Your task to perform on an android device: What's the news? Image 0: 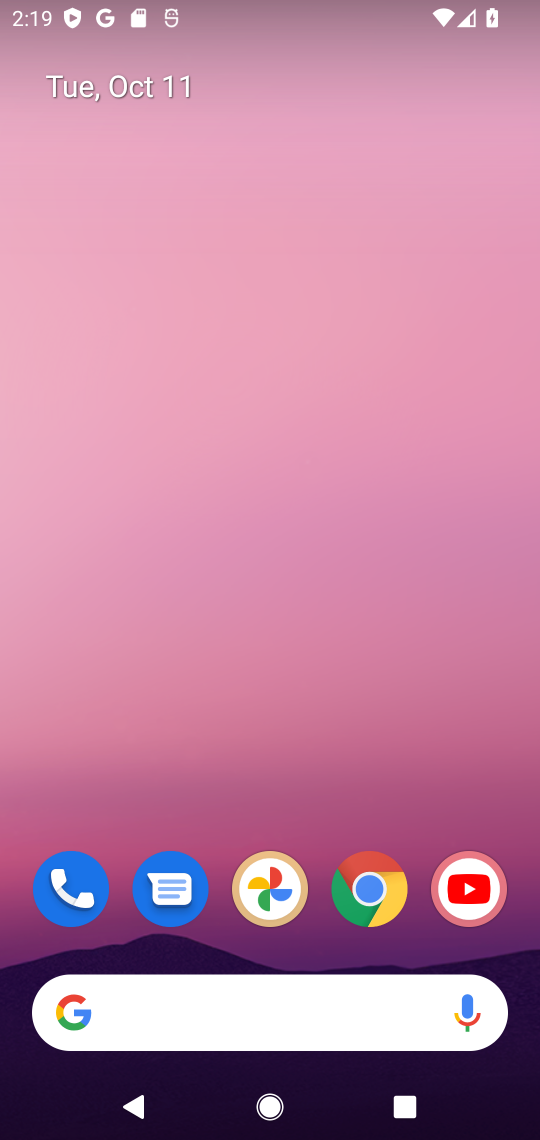
Step 0: drag from (230, 933) to (164, 298)
Your task to perform on an android device: What's the news? Image 1: 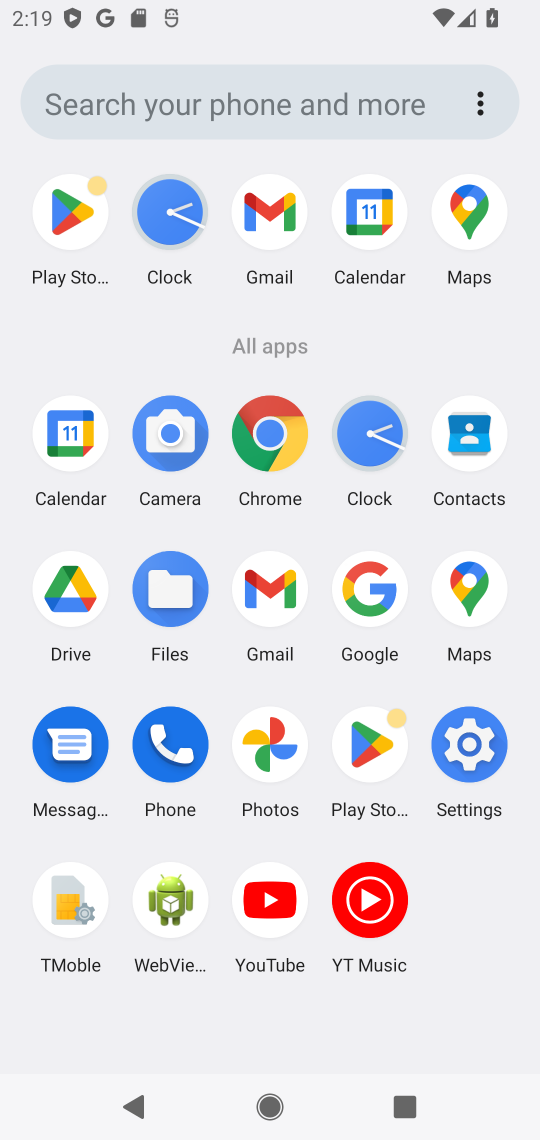
Step 1: click (362, 583)
Your task to perform on an android device: What's the news? Image 2: 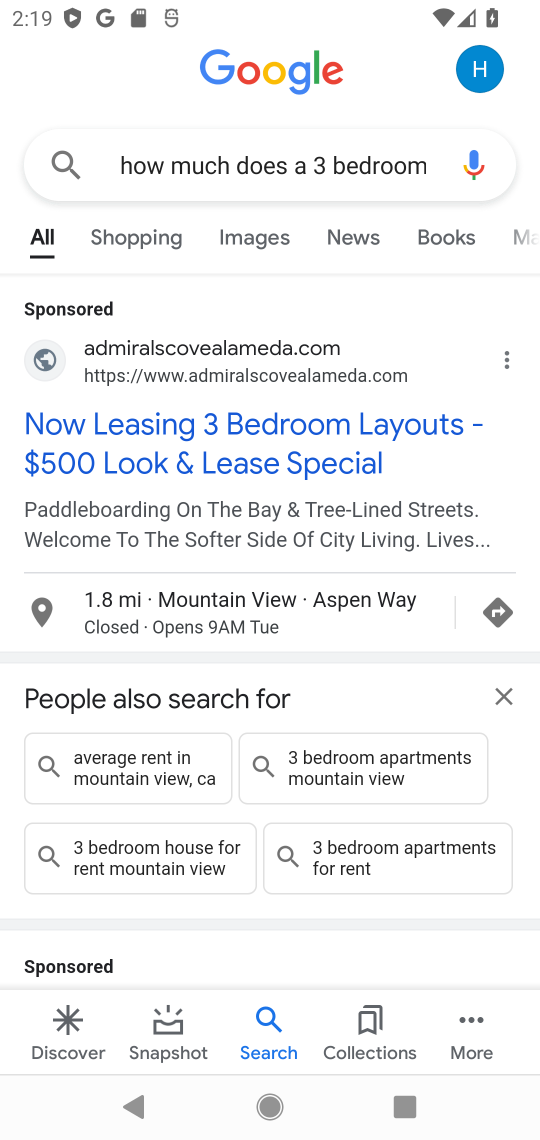
Step 2: click (310, 163)
Your task to perform on an android device: What's the news? Image 3: 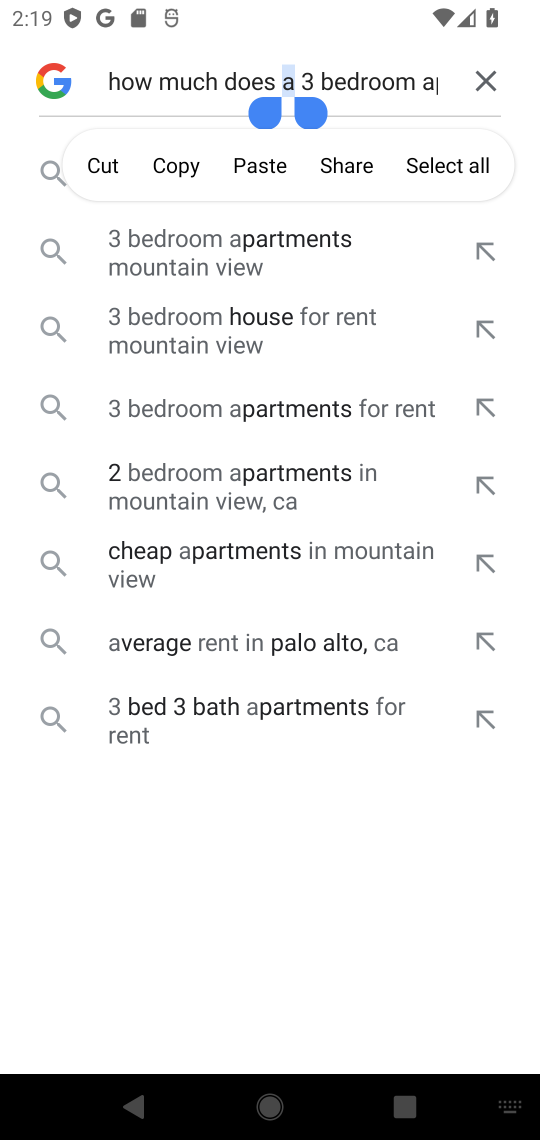
Step 3: click (490, 83)
Your task to perform on an android device: What's the news? Image 4: 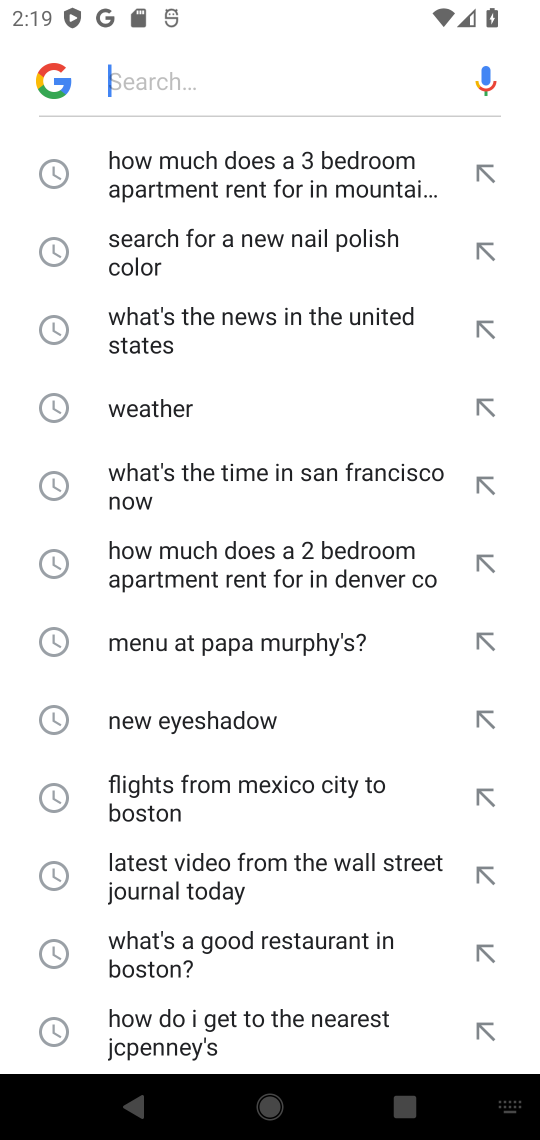
Step 4: click (195, 72)
Your task to perform on an android device: What's the news? Image 5: 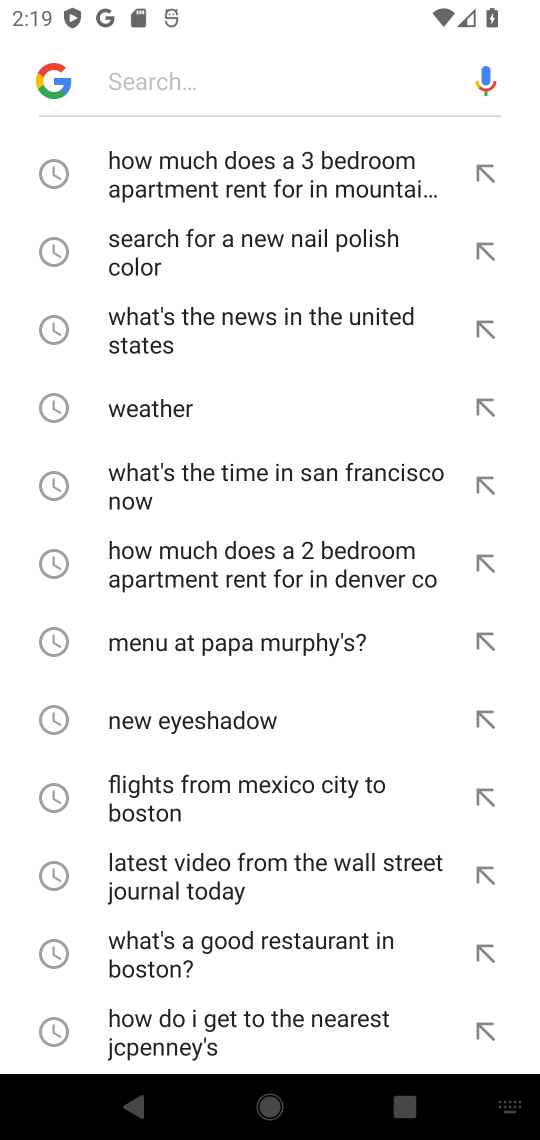
Step 5: type "What's the news? "
Your task to perform on an android device: What's the news? Image 6: 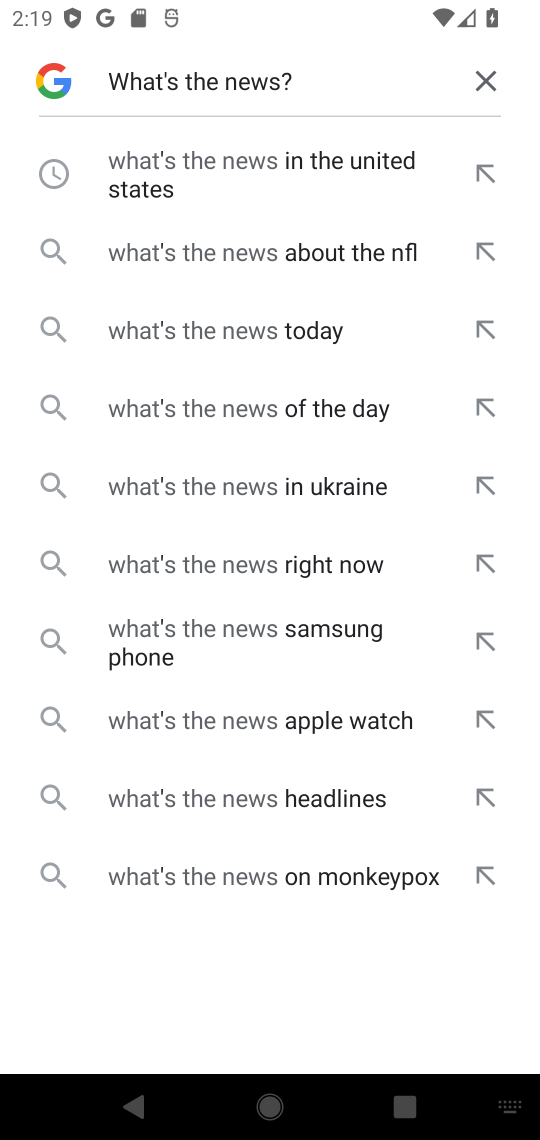
Step 6: click (263, 341)
Your task to perform on an android device: What's the news? Image 7: 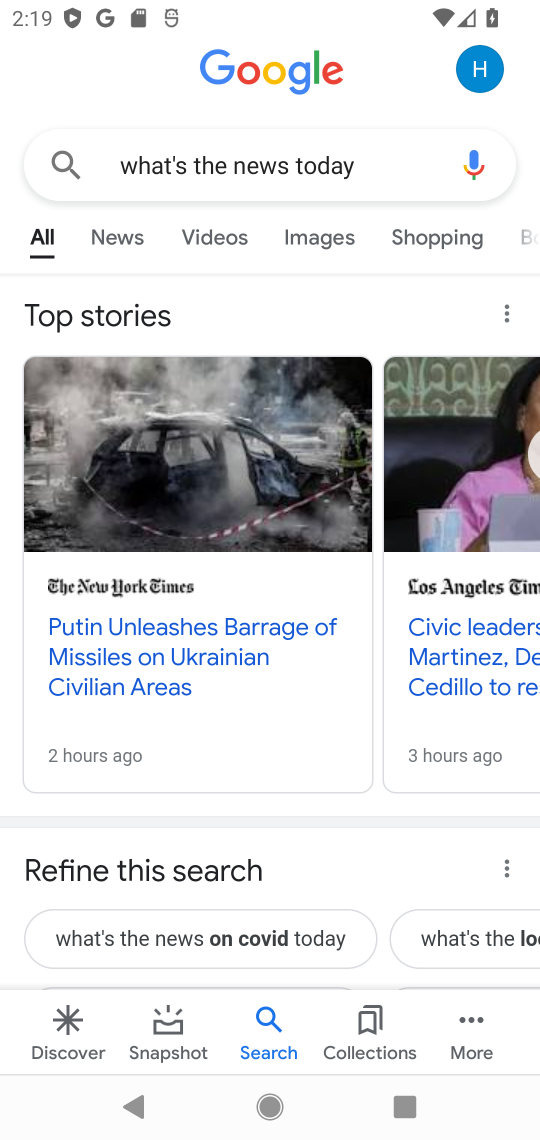
Step 7: drag from (310, 852) to (287, 211)
Your task to perform on an android device: What's the news? Image 8: 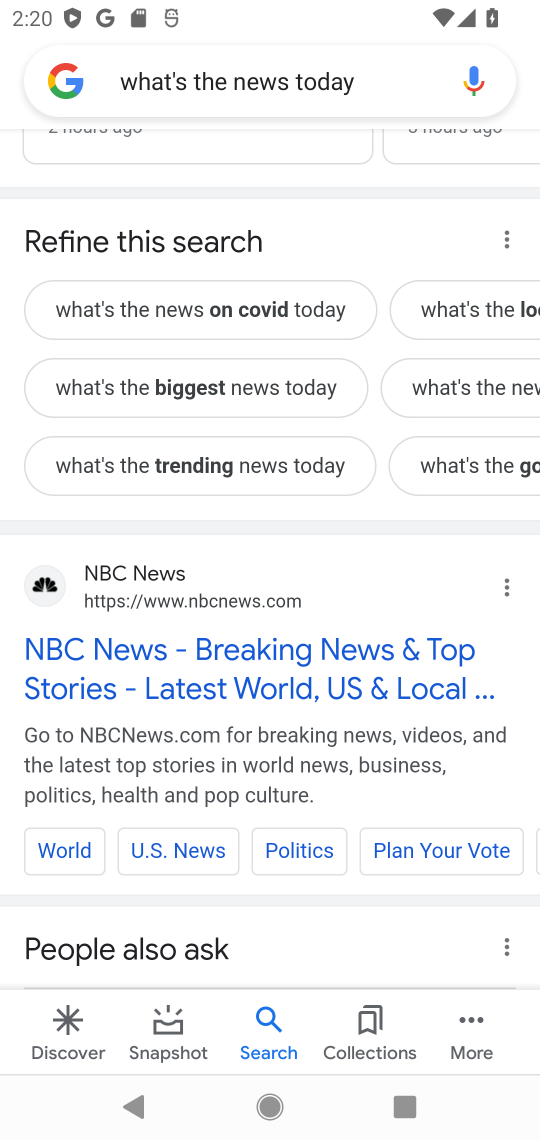
Step 8: click (208, 651)
Your task to perform on an android device: What's the news? Image 9: 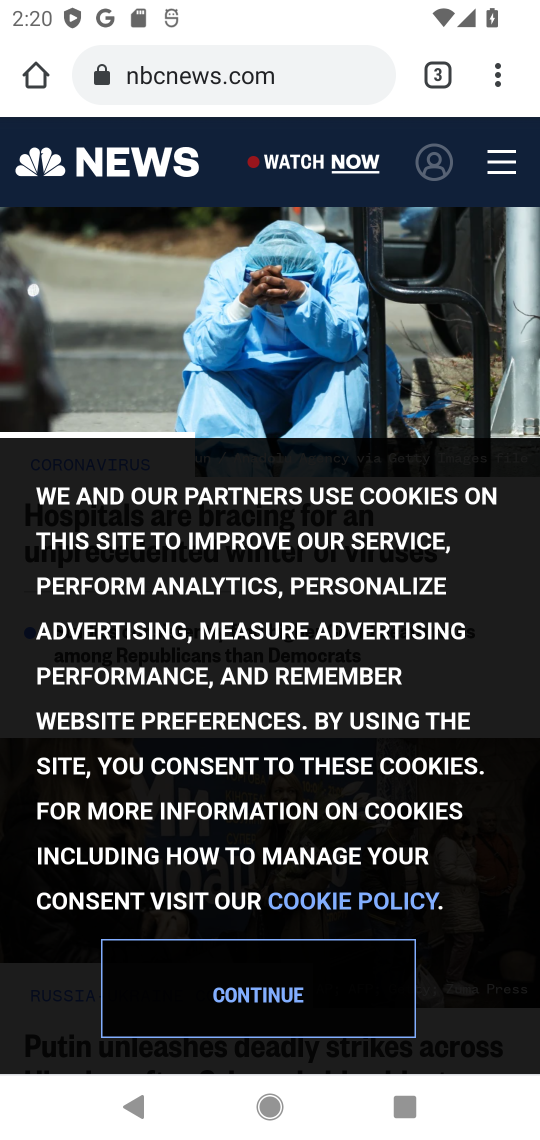
Step 9: click (219, 963)
Your task to perform on an android device: What's the news? Image 10: 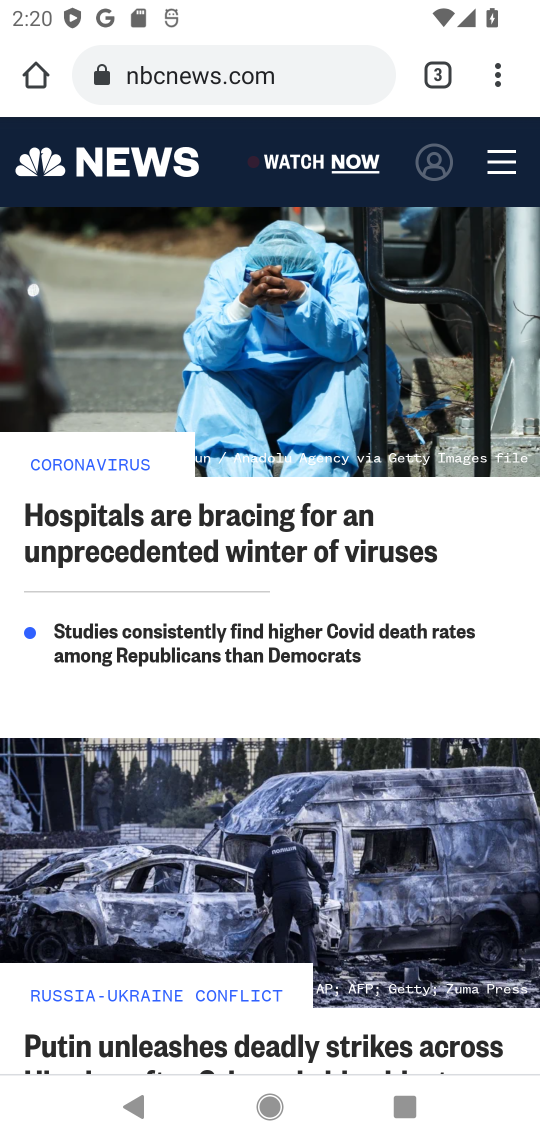
Step 10: task complete